Your task to perform on an android device: check storage Image 0: 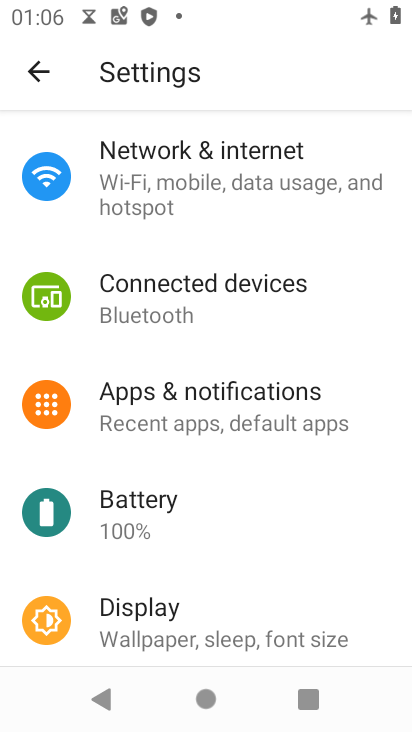
Step 0: drag from (263, 521) to (305, 235)
Your task to perform on an android device: check storage Image 1: 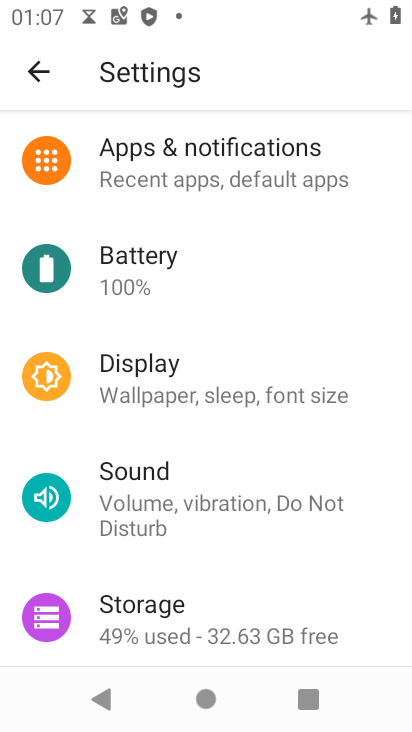
Step 1: click (286, 614)
Your task to perform on an android device: check storage Image 2: 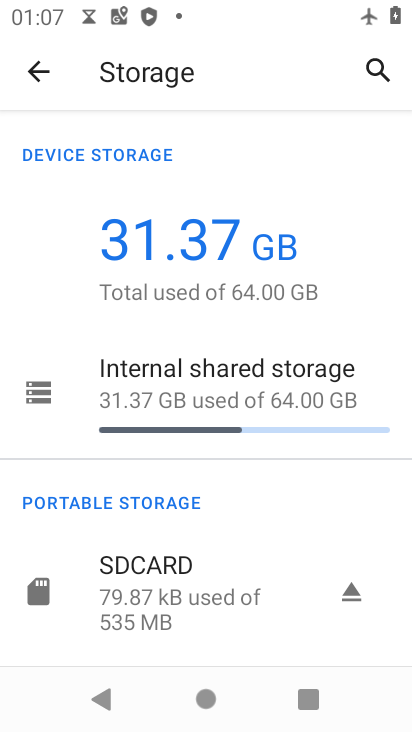
Step 2: task complete